Your task to perform on an android device: Go to internet settings Image 0: 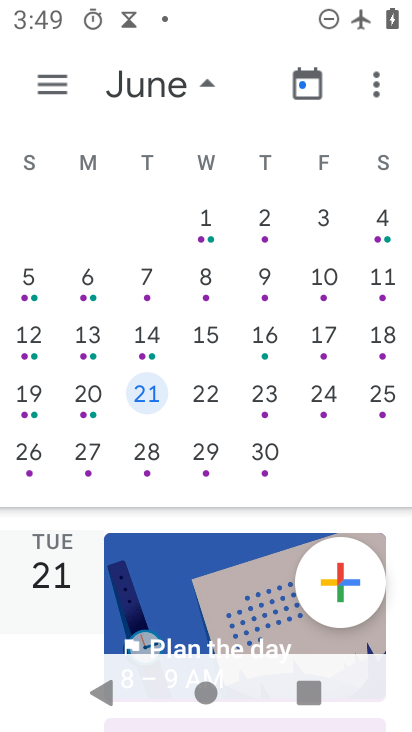
Step 0: press home button
Your task to perform on an android device: Go to internet settings Image 1: 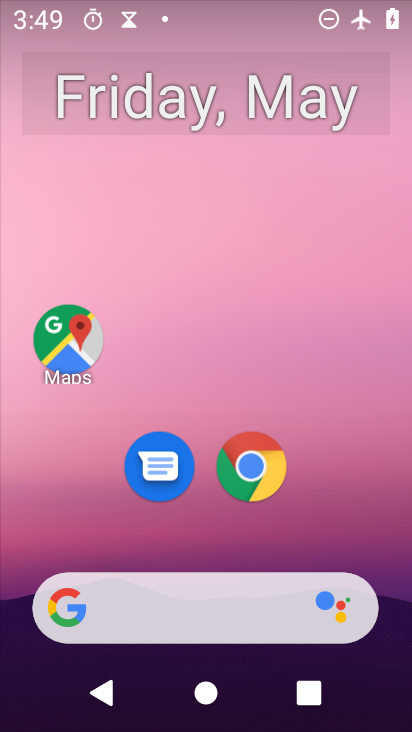
Step 1: drag from (402, 410) to (374, 46)
Your task to perform on an android device: Go to internet settings Image 2: 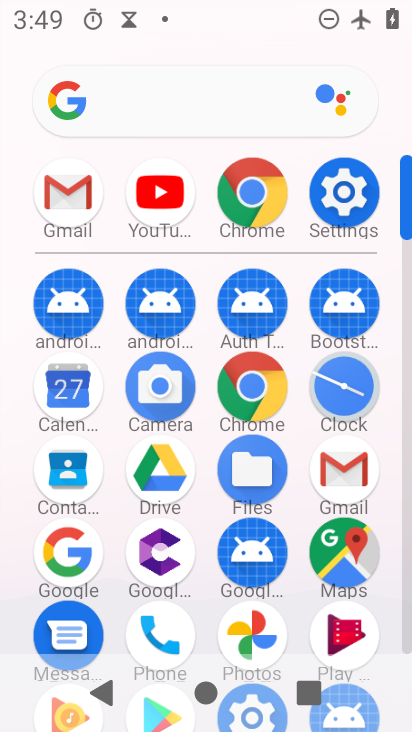
Step 2: click (357, 186)
Your task to perform on an android device: Go to internet settings Image 3: 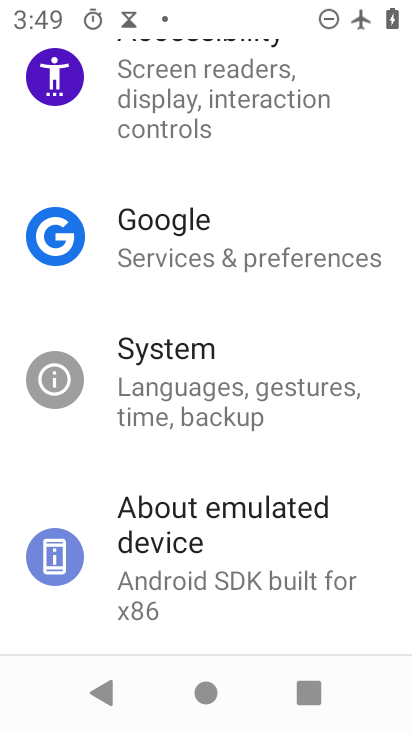
Step 3: drag from (357, 186) to (345, 712)
Your task to perform on an android device: Go to internet settings Image 4: 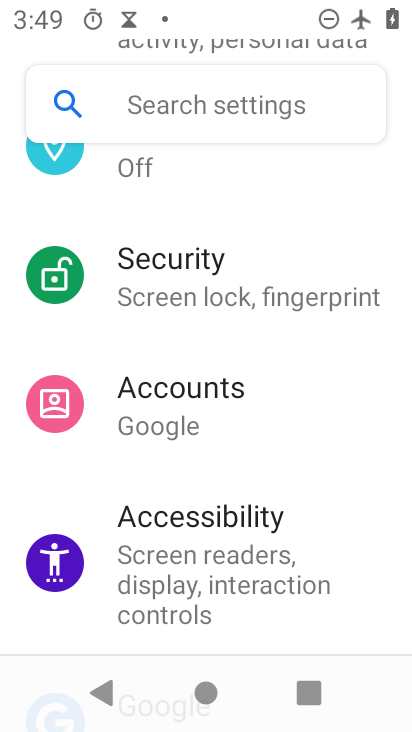
Step 4: drag from (316, 297) to (377, 714)
Your task to perform on an android device: Go to internet settings Image 5: 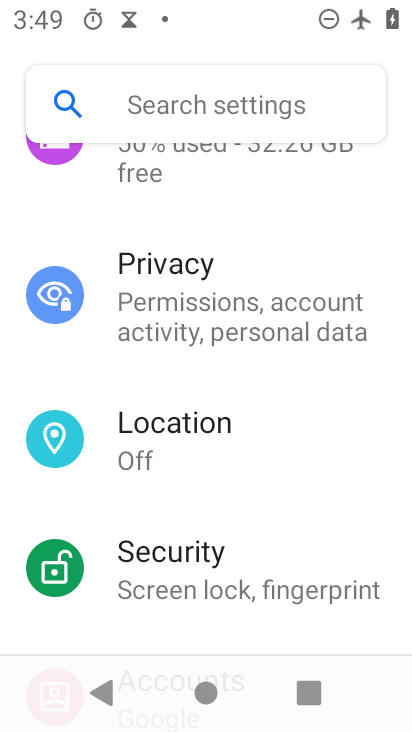
Step 5: drag from (210, 198) to (294, 673)
Your task to perform on an android device: Go to internet settings Image 6: 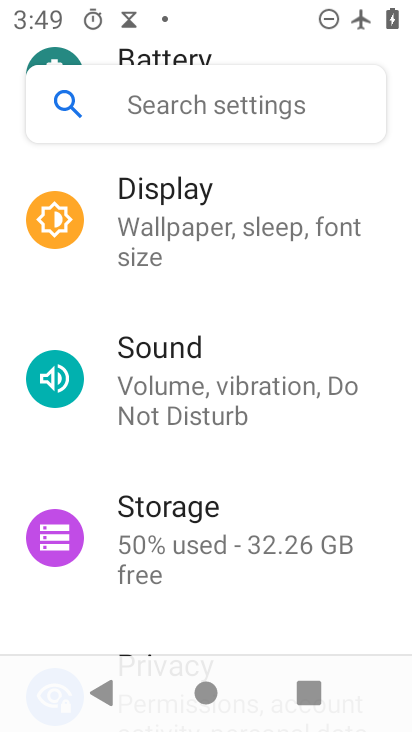
Step 6: drag from (278, 303) to (369, 715)
Your task to perform on an android device: Go to internet settings Image 7: 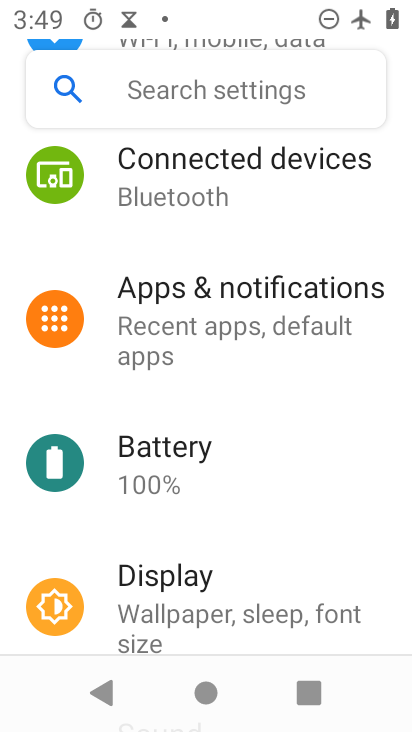
Step 7: drag from (258, 268) to (373, 672)
Your task to perform on an android device: Go to internet settings Image 8: 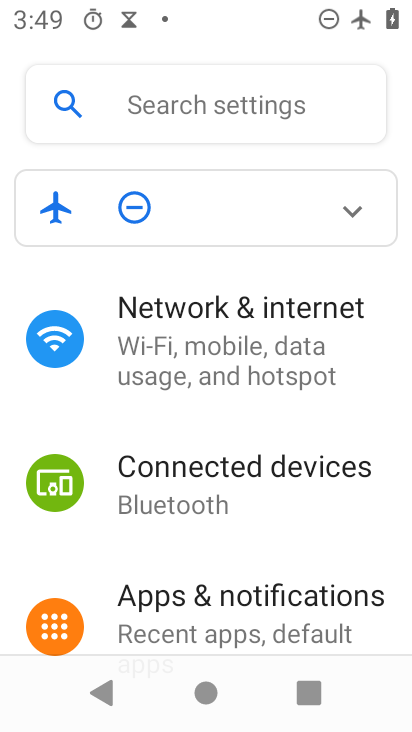
Step 8: click (246, 329)
Your task to perform on an android device: Go to internet settings Image 9: 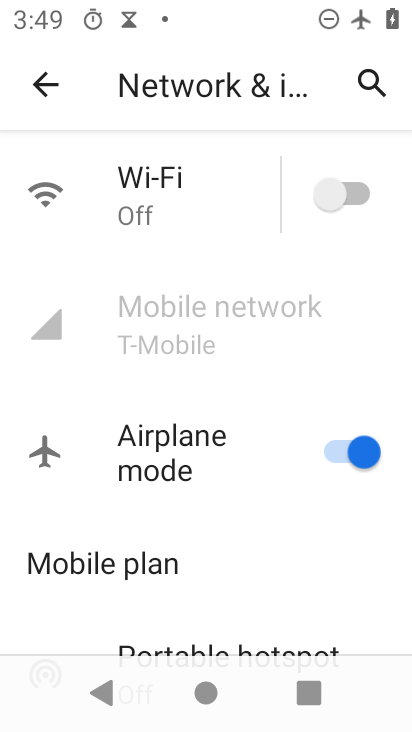
Step 9: task complete